Your task to perform on an android device: toggle priority inbox in the gmail app Image 0: 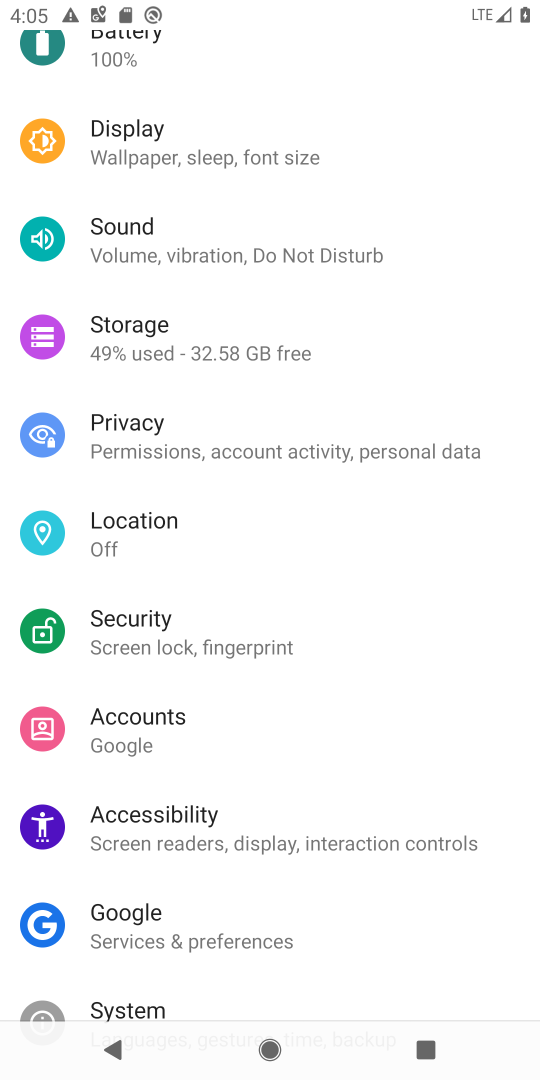
Step 0: press back button
Your task to perform on an android device: toggle priority inbox in the gmail app Image 1: 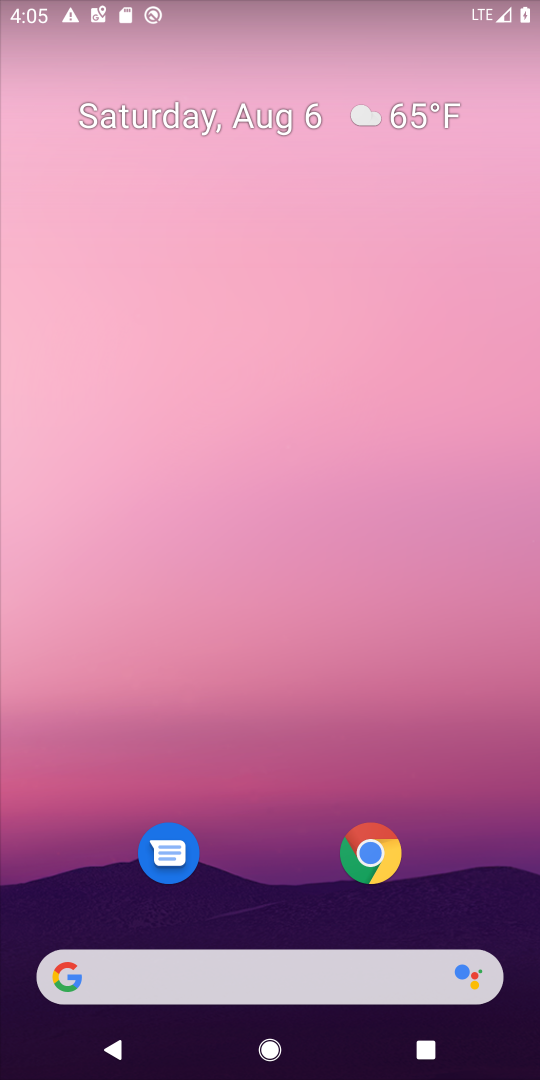
Step 1: drag from (255, 811) to (333, 31)
Your task to perform on an android device: toggle priority inbox in the gmail app Image 2: 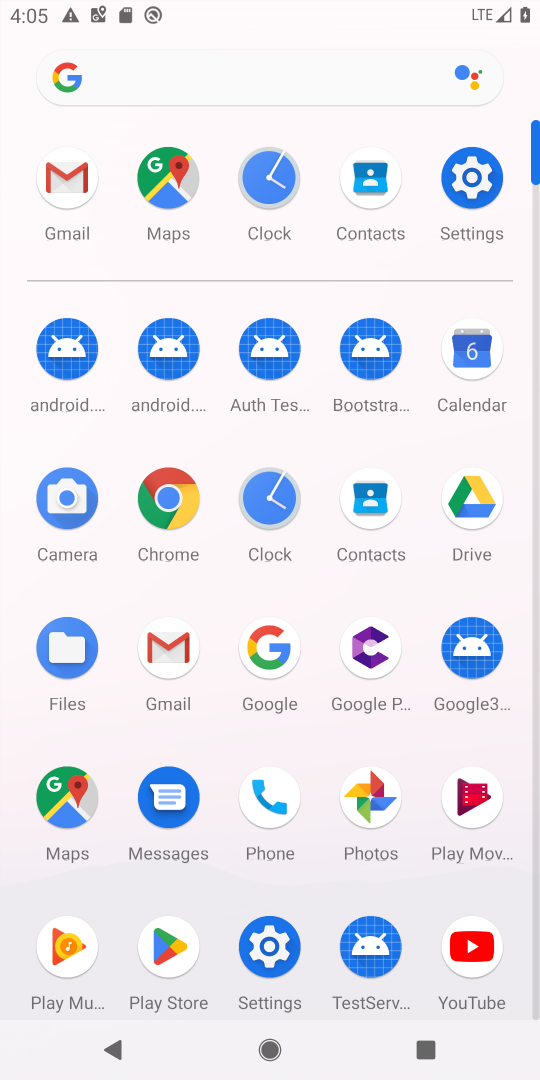
Step 2: click (84, 164)
Your task to perform on an android device: toggle priority inbox in the gmail app Image 3: 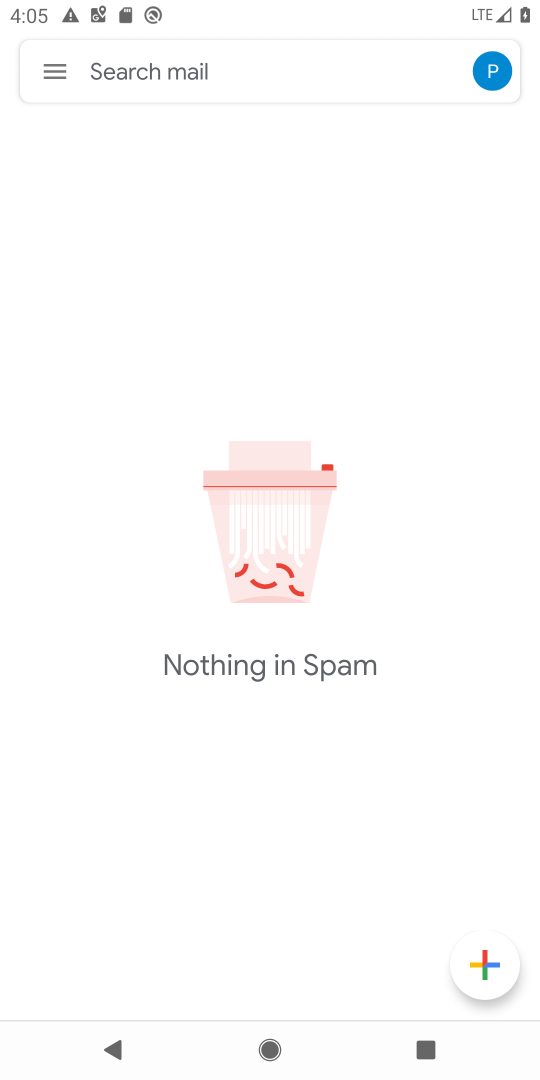
Step 3: click (60, 60)
Your task to perform on an android device: toggle priority inbox in the gmail app Image 4: 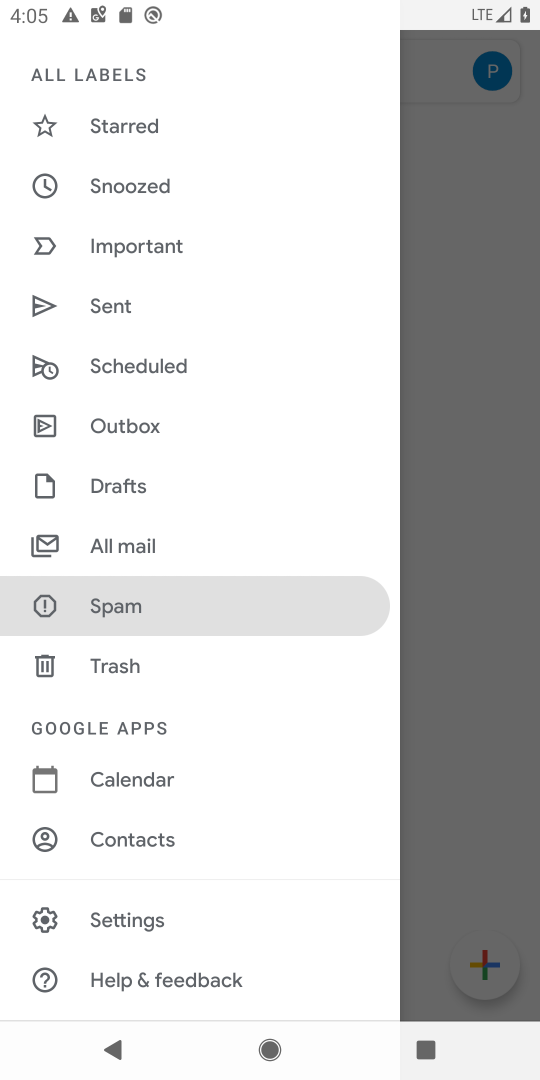
Step 4: click (138, 902)
Your task to perform on an android device: toggle priority inbox in the gmail app Image 5: 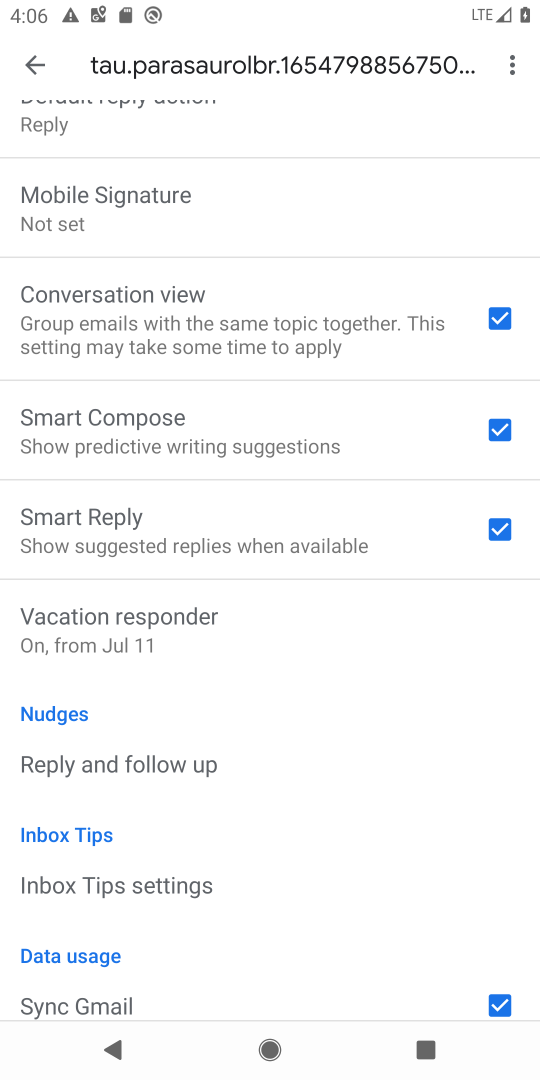
Step 5: drag from (263, 266) to (233, 948)
Your task to perform on an android device: toggle priority inbox in the gmail app Image 6: 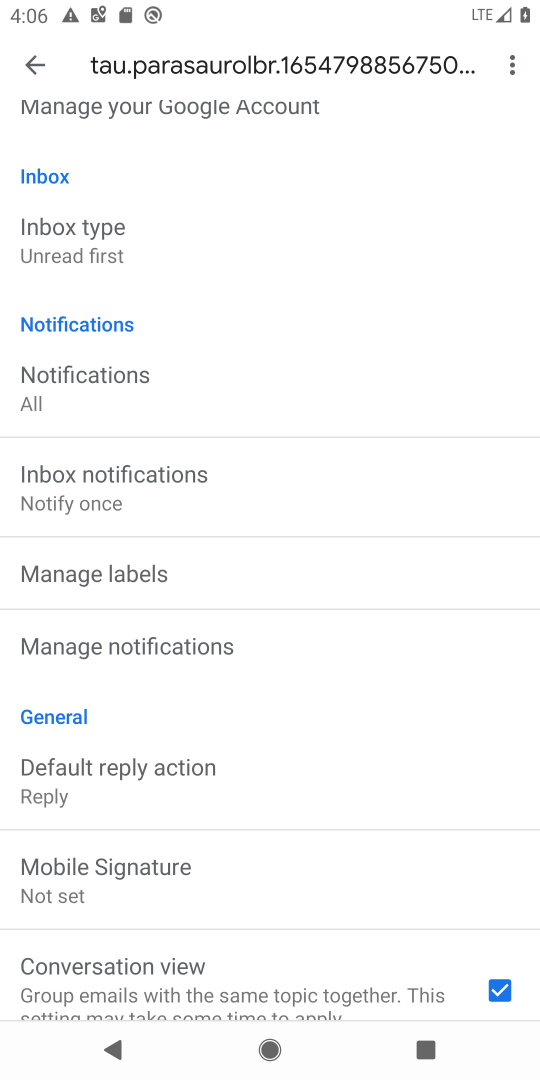
Step 6: drag from (327, 309) to (299, 945)
Your task to perform on an android device: toggle priority inbox in the gmail app Image 7: 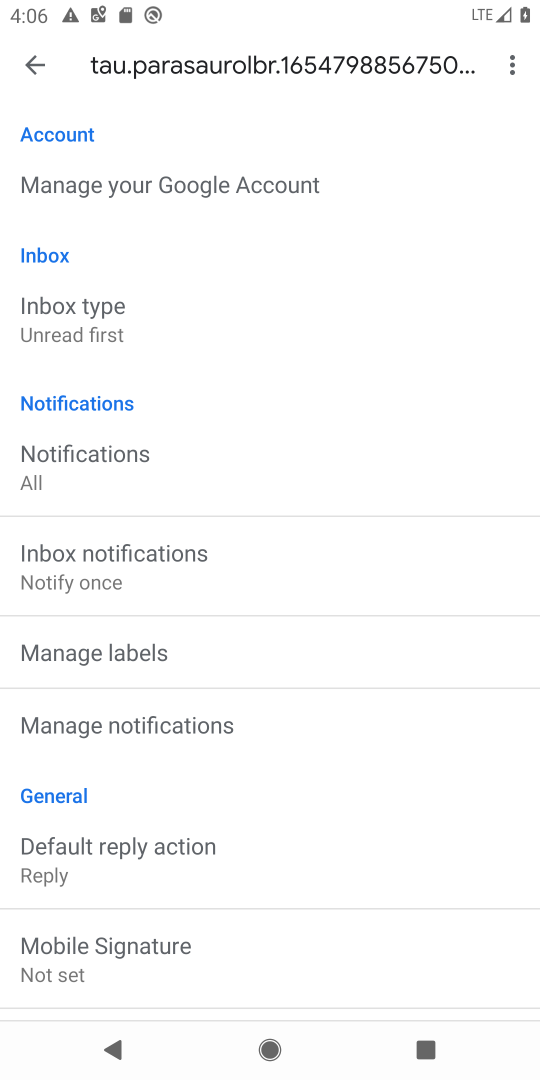
Step 7: click (114, 320)
Your task to perform on an android device: toggle priority inbox in the gmail app Image 8: 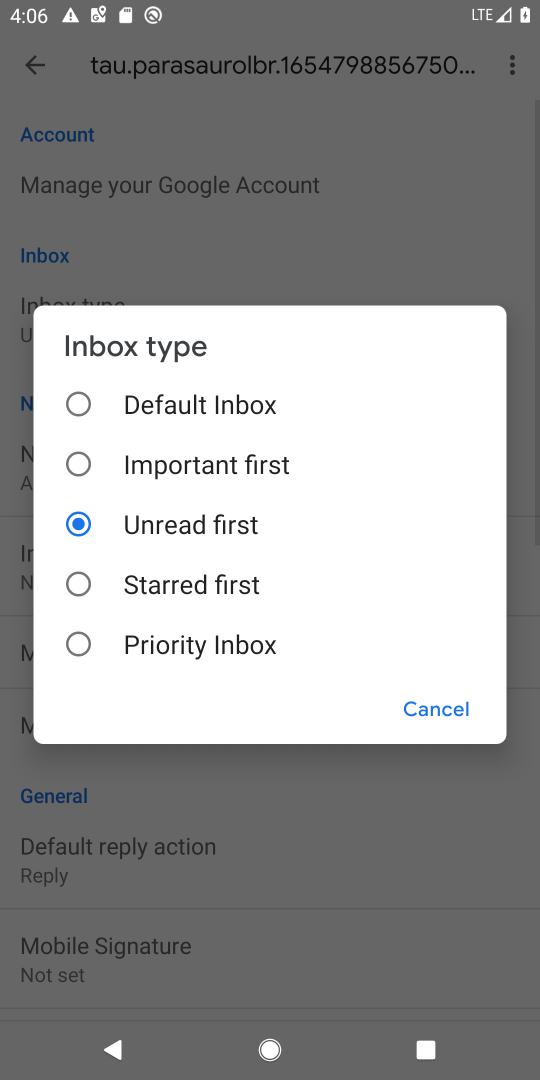
Step 8: click (46, 637)
Your task to perform on an android device: toggle priority inbox in the gmail app Image 9: 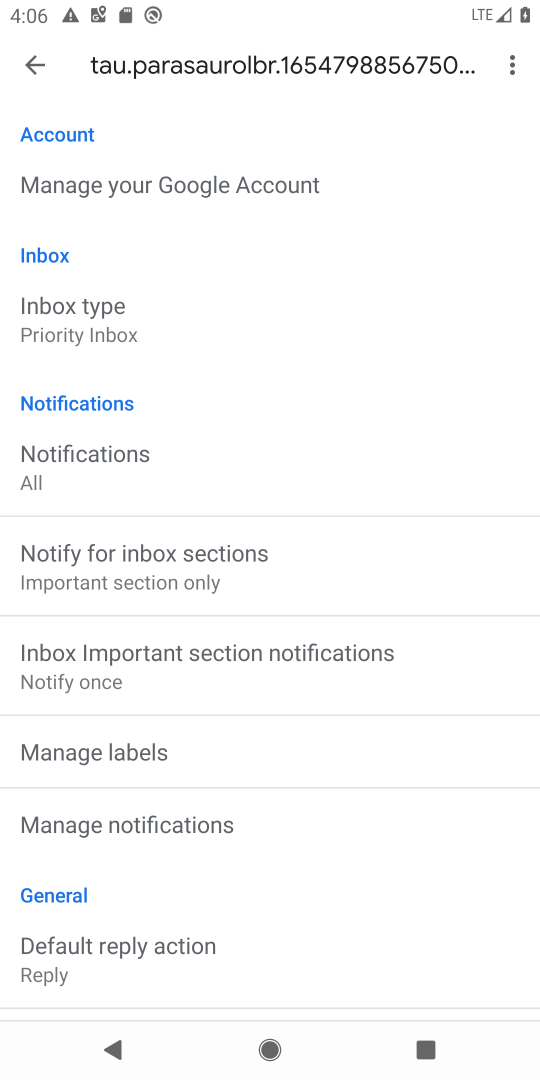
Step 9: task complete